Your task to perform on an android device: toggle show notifications on the lock screen Image 0: 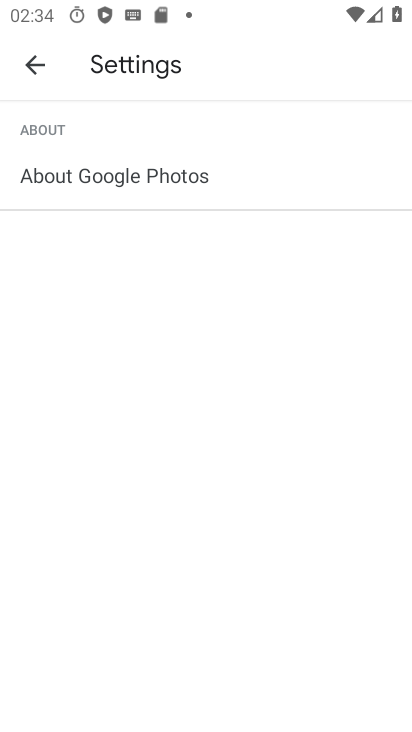
Step 0: press home button
Your task to perform on an android device: toggle show notifications on the lock screen Image 1: 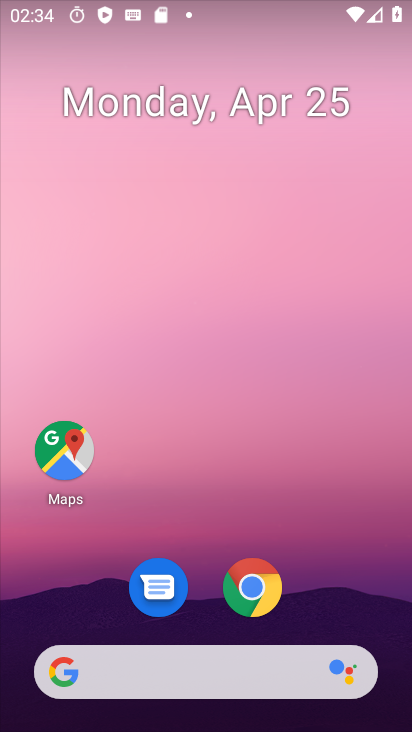
Step 1: drag from (369, 546) to (343, 162)
Your task to perform on an android device: toggle show notifications on the lock screen Image 2: 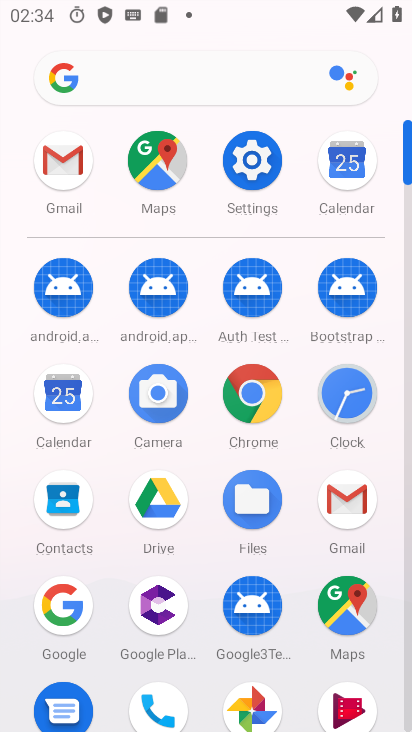
Step 2: click (269, 165)
Your task to perform on an android device: toggle show notifications on the lock screen Image 3: 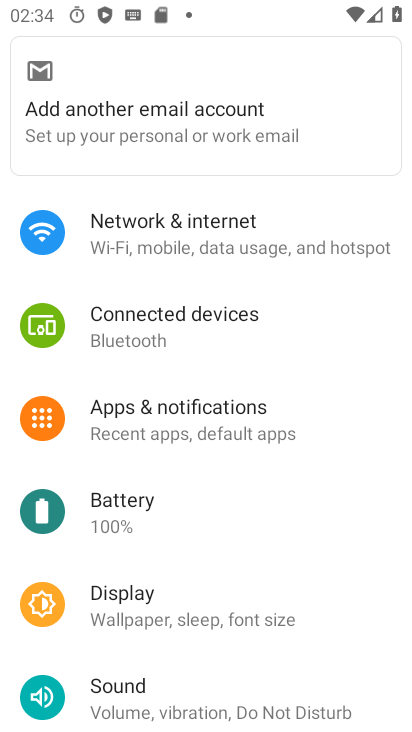
Step 3: click (165, 428)
Your task to perform on an android device: toggle show notifications on the lock screen Image 4: 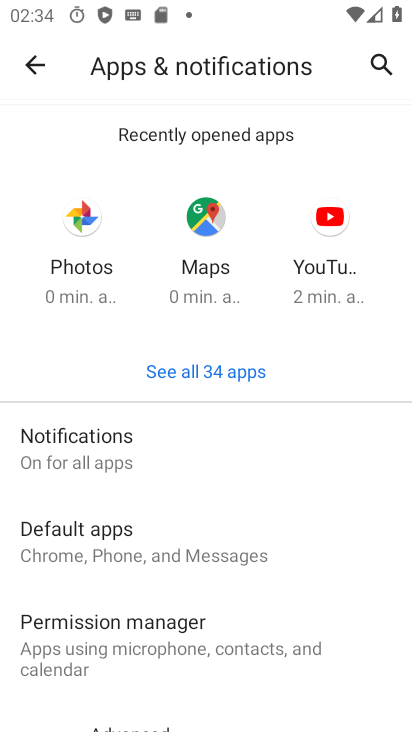
Step 4: click (121, 450)
Your task to perform on an android device: toggle show notifications on the lock screen Image 5: 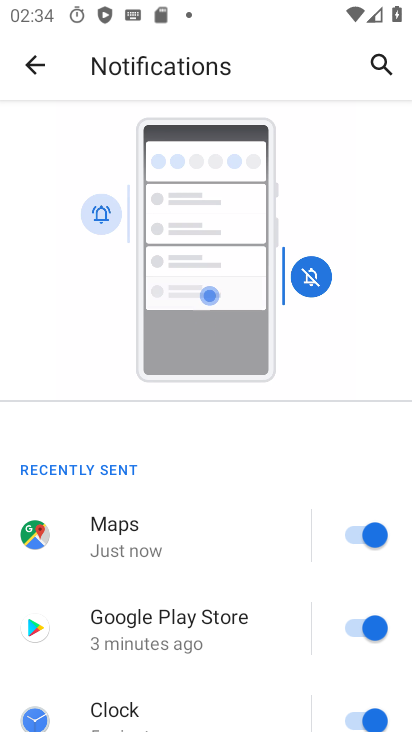
Step 5: drag from (269, 353) to (276, 7)
Your task to perform on an android device: toggle show notifications on the lock screen Image 6: 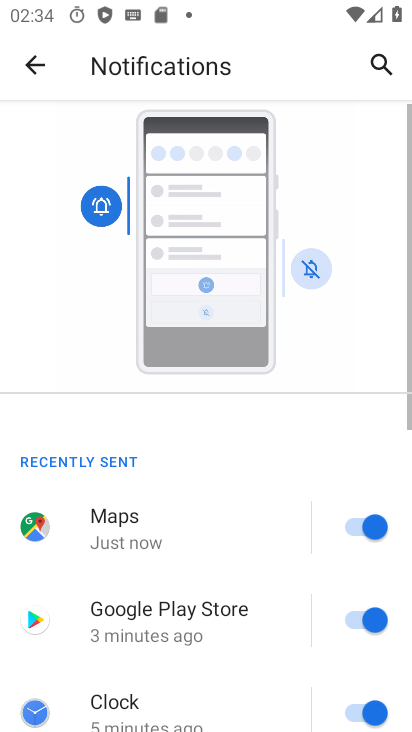
Step 6: drag from (235, 637) to (279, 112)
Your task to perform on an android device: toggle show notifications on the lock screen Image 7: 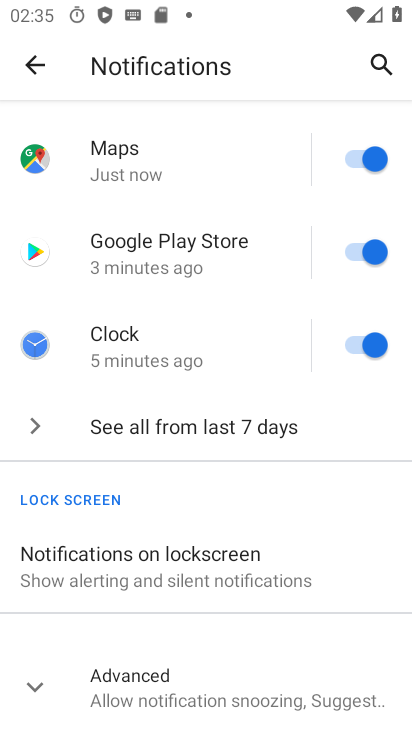
Step 7: click (186, 563)
Your task to perform on an android device: toggle show notifications on the lock screen Image 8: 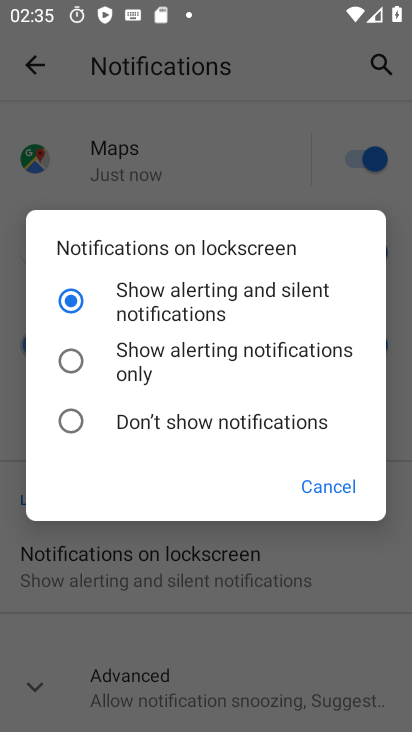
Step 8: click (231, 357)
Your task to perform on an android device: toggle show notifications on the lock screen Image 9: 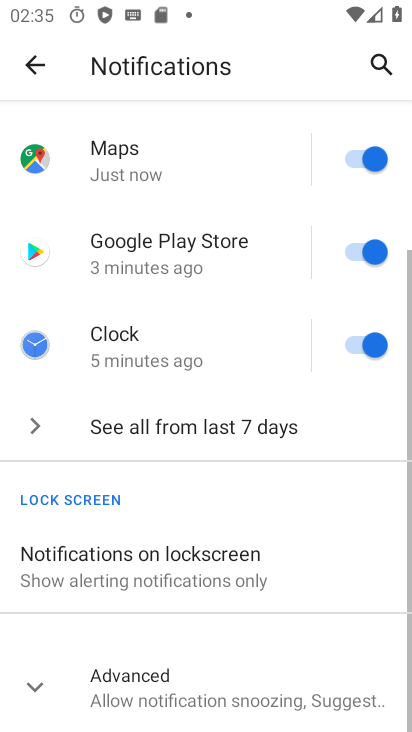
Step 9: task complete